Your task to perform on an android device: What is the recent news? Image 0: 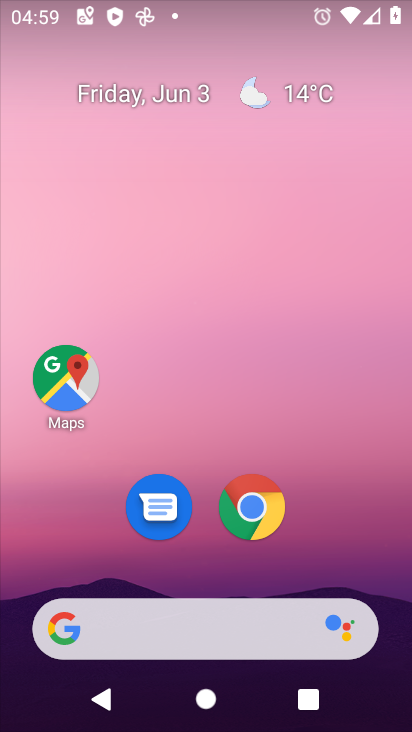
Step 0: press home button
Your task to perform on an android device: What is the recent news? Image 1: 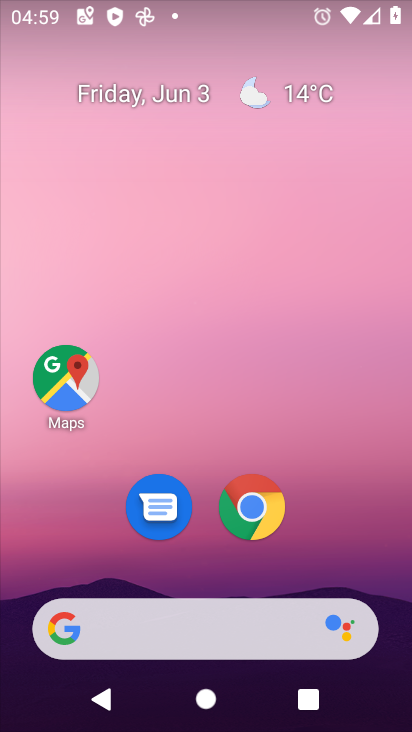
Step 1: click (214, 632)
Your task to perform on an android device: What is the recent news? Image 2: 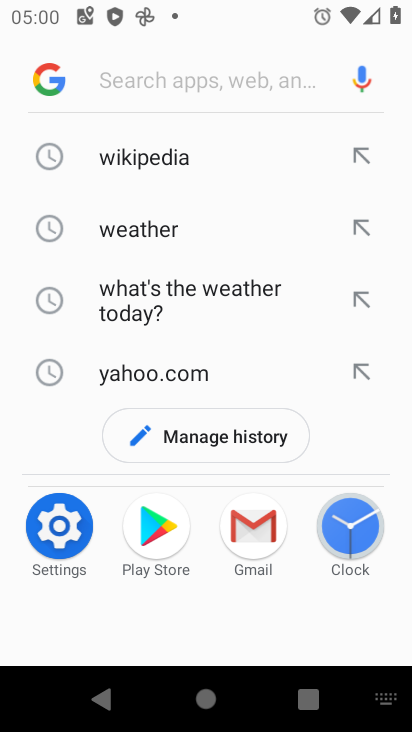
Step 2: type " recent news?"
Your task to perform on an android device: What is the recent news? Image 3: 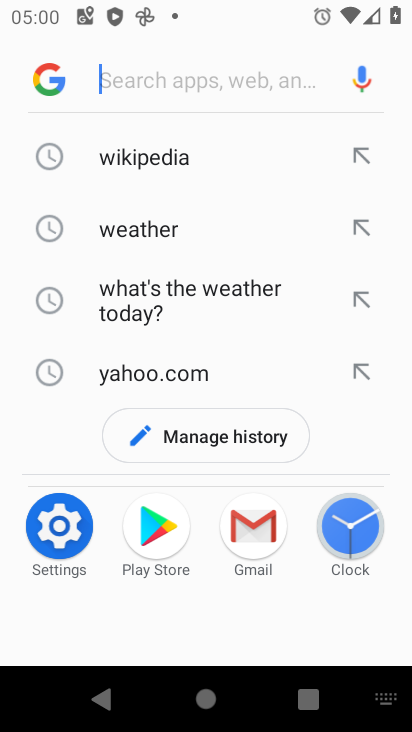
Step 3: click (154, 73)
Your task to perform on an android device: What is the recent news? Image 4: 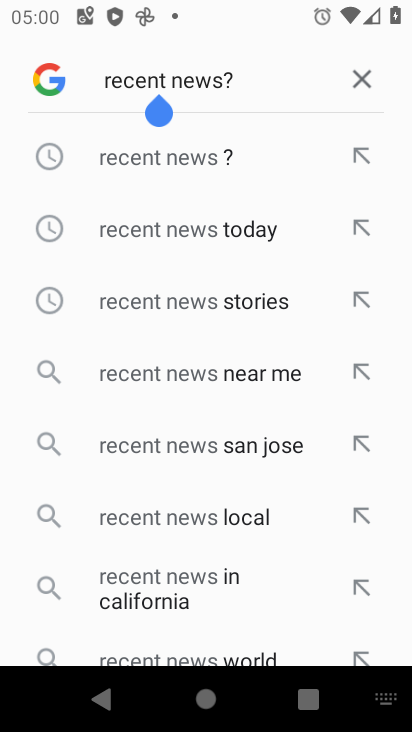
Step 4: click (185, 163)
Your task to perform on an android device: What is the recent news? Image 5: 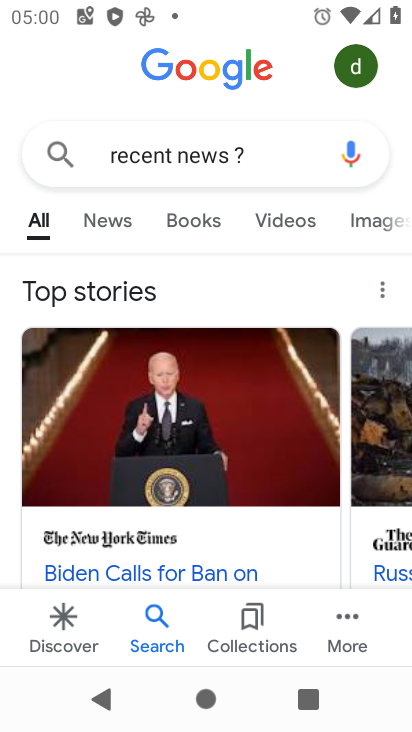
Step 5: task complete